Your task to perform on an android device: Check the news Image 0: 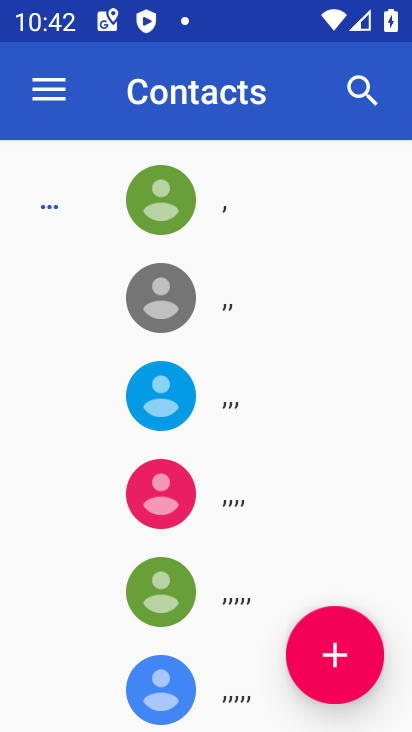
Step 0: press home button
Your task to perform on an android device: Check the news Image 1: 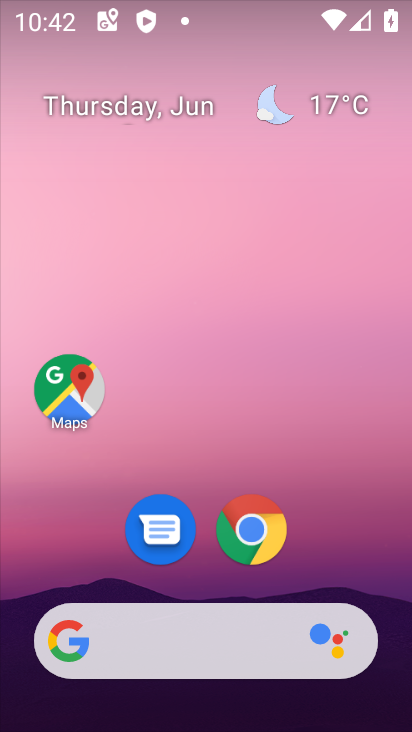
Step 1: click (179, 654)
Your task to perform on an android device: Check the news Image 2: 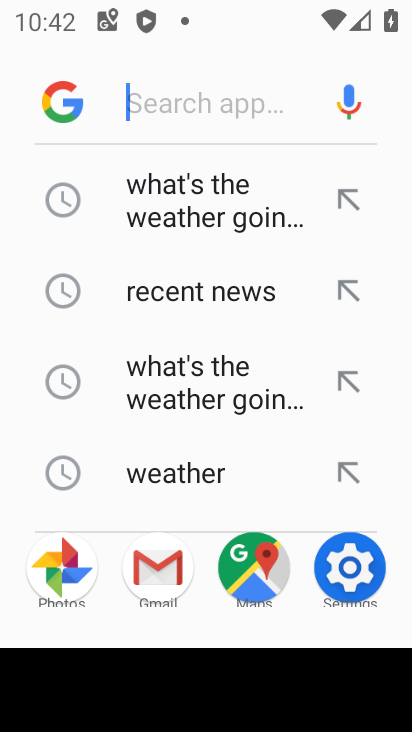
Step 2: type "news"
Your task to perform on an android device: Check the news Image 3: 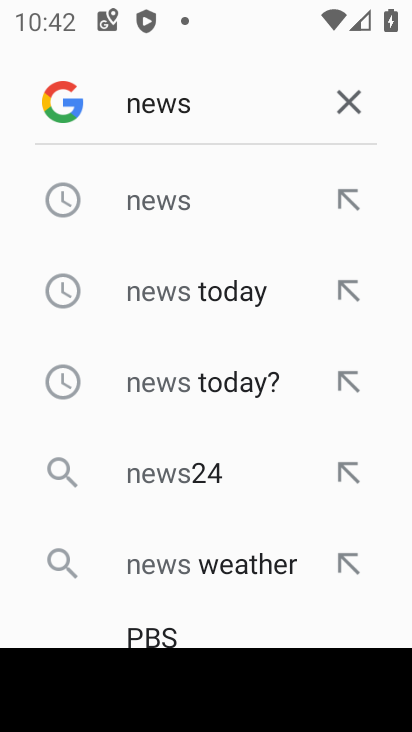
Step 3: click (187, 216)
Your task to perform on an android device: Check the news Image 4: 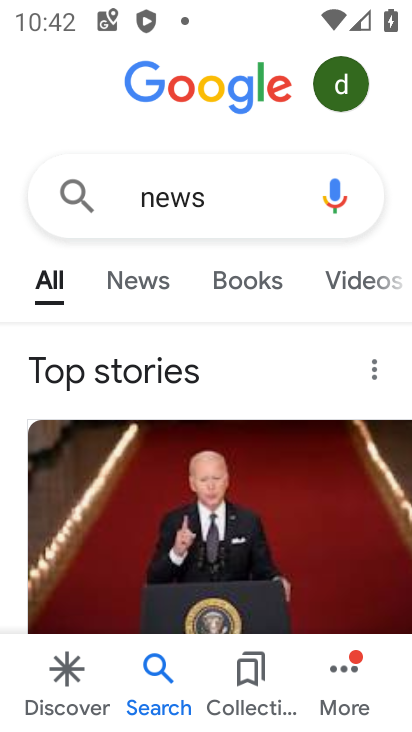
Step 4: click (150, 269)
Your task to perform on an android device: Check the news Image 5: 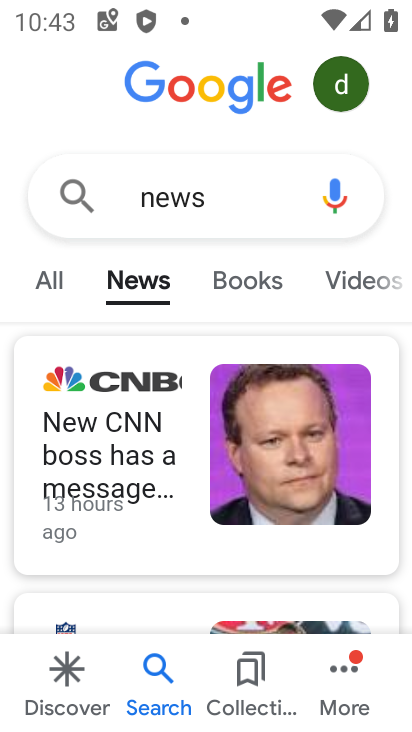
Step 5: task complete